Your task to perform on an android device: open sync settings in chrome Image 0: 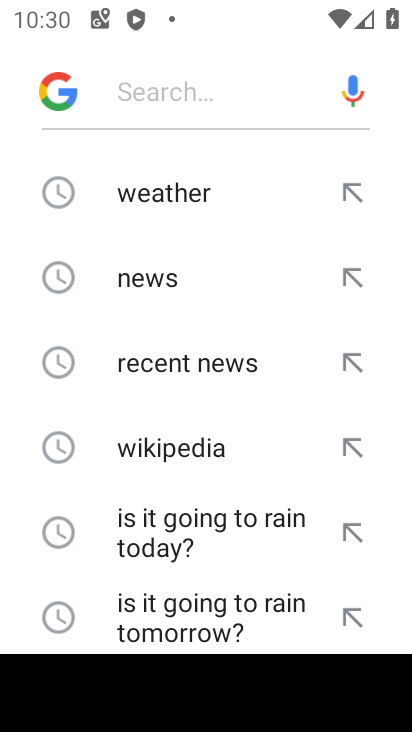
Step 0: press back button
Your task to perform on an android device: open sync settings in chrome Image 1: 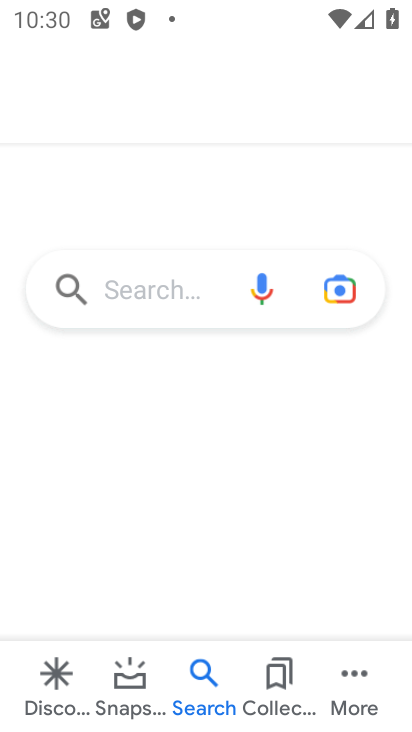
Step 1: press back button
Your task to perform on an android device: open sync settings in chrome Image 2: 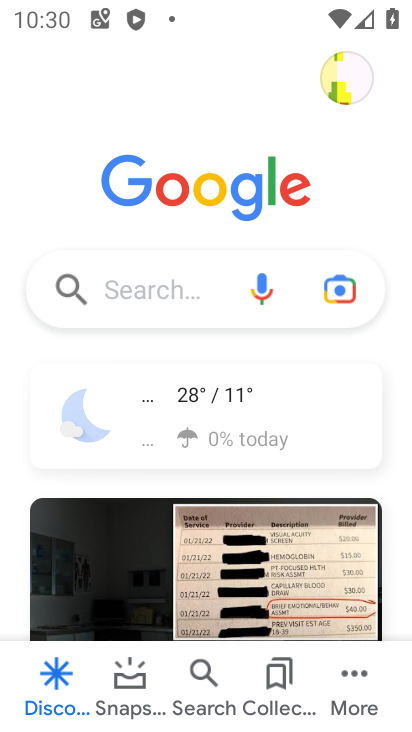
Step 2: press back button
Your task to perform on an android device: open sync settings in chrome Image 3: 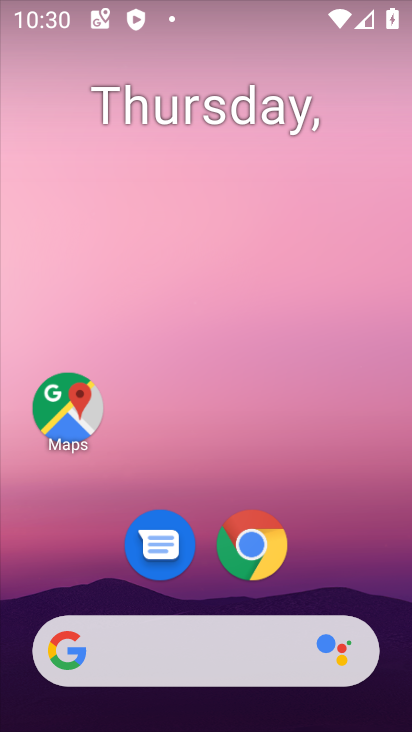
Step 3: click (253, 543)
Your task to perform on an android device: open sync settings in chrome Image 4: 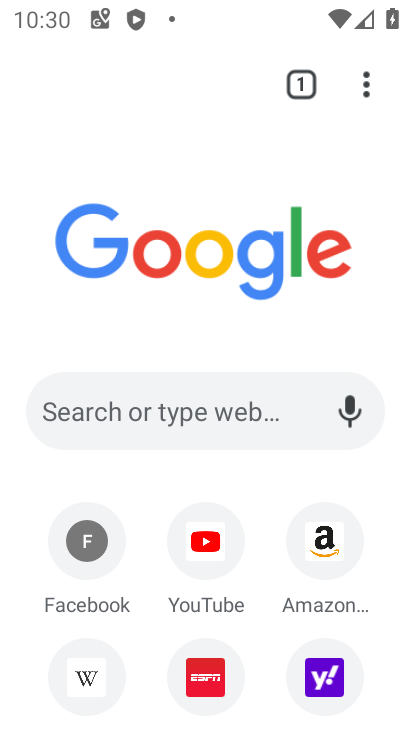
Step 4: click (366, 86)
Your task to perform on an android device: open sync settings in chrome Image 5: 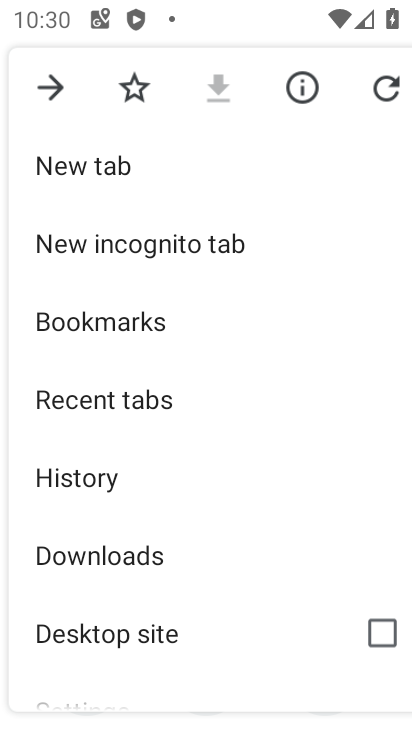
Step 5: drag from (167, 506) to (262, 390)
Your task to perform on an android device: open sync settings in chrome Image 6: 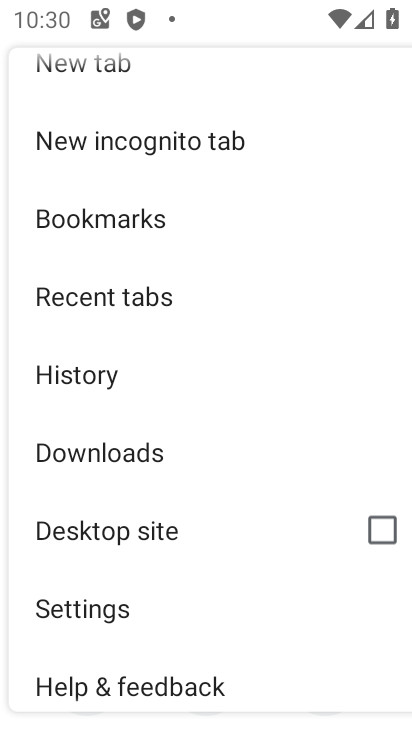
Step 6: click (104, 616)
Your task to perform on an android device: open sync settings in chrome Image 7: 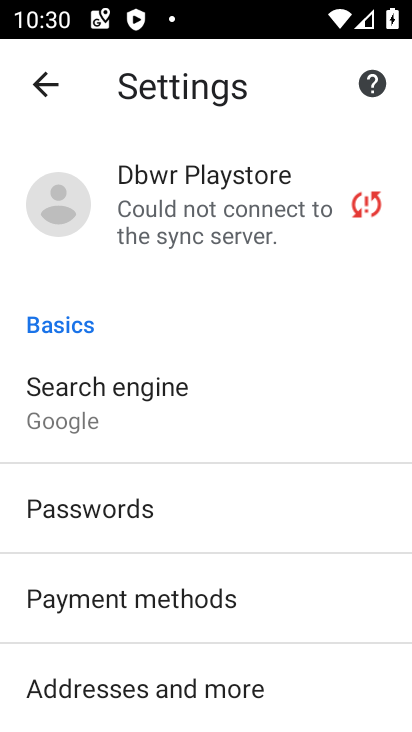
Step 7: drag from (159, 569) to (257, 464)
Your task to perform on an android device: open sync settings in chrome Image 8: 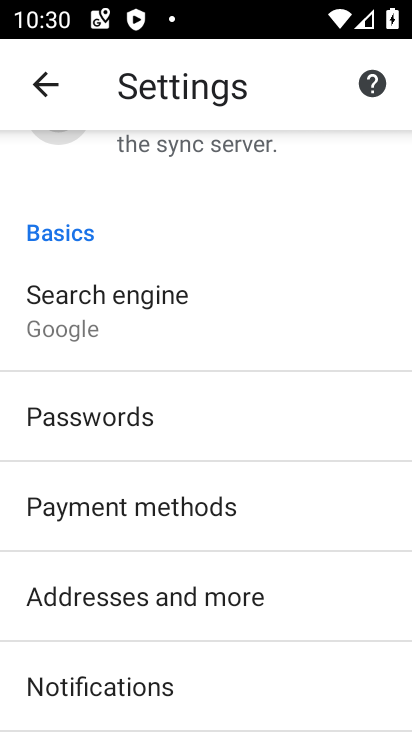
Step 8: drag from (132, 619) to (253, 491)
Your task to perform on an android device: open sync settings in chrome Image 9: 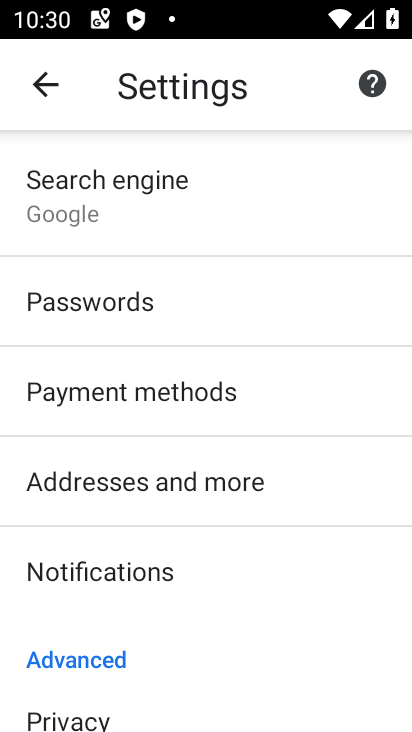
Step 9: drag from (142, 599) to (266, 467)
Your task to perform on an android device: open sync settings in chrome Image 10: 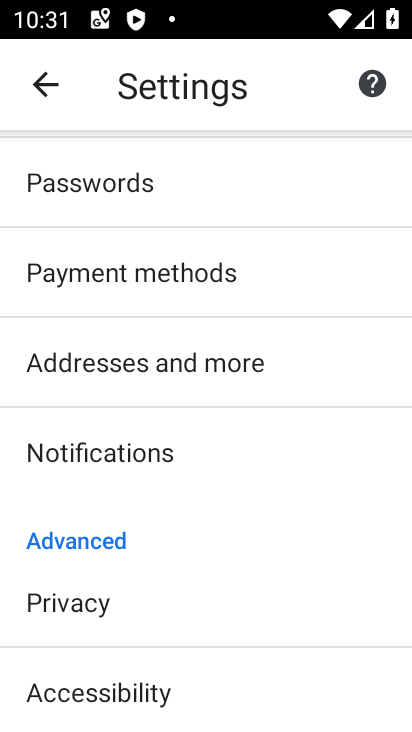
Step 10: drag from (135, 609) to (226, 503)
Your task to perform on an android device: open sync settings in chrome Image 11: 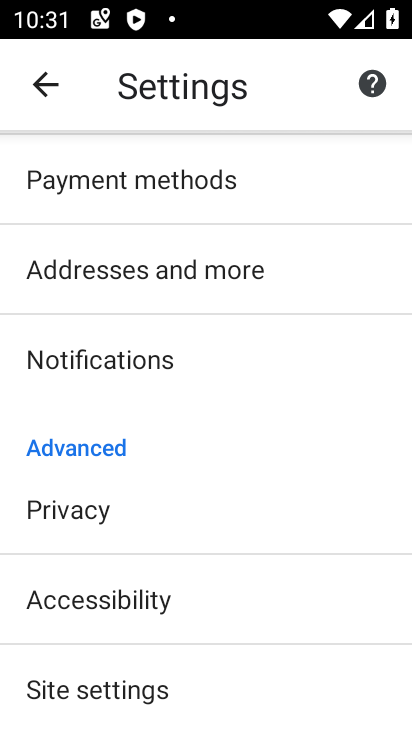
Step 11: drag from (175, 634) to (279, 513)
Your task to perform on an android device: open sync settings in chrome Image 12: 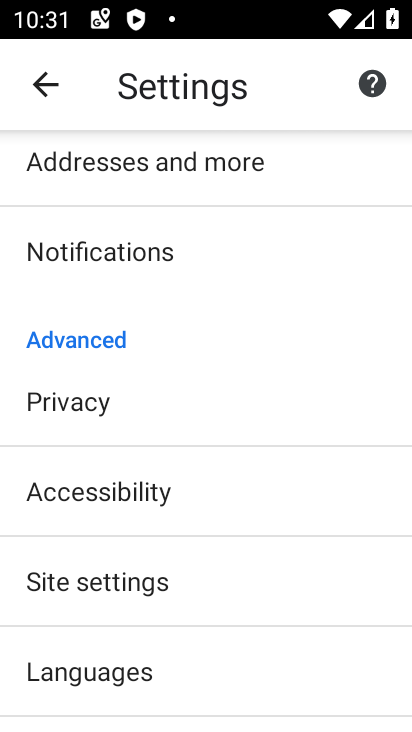
Step 12: click (129, 584)
Your task to perform on an android device: open sync settings in chrome Image 13: 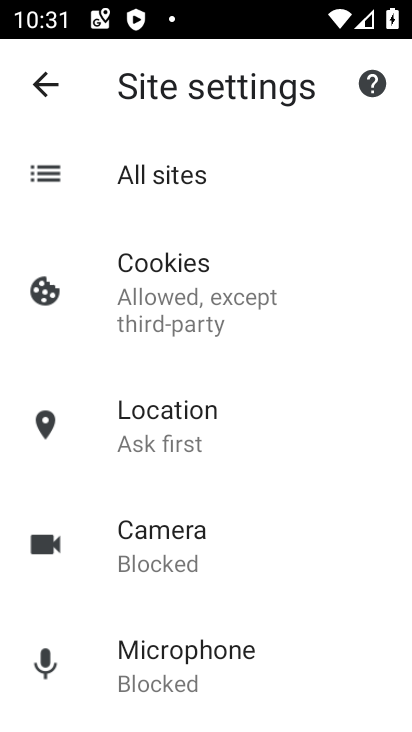
Step 13: drag from (161, 619) to (257, 515)
Your task to perform on an android device: open sync settings in chrome Image 14: 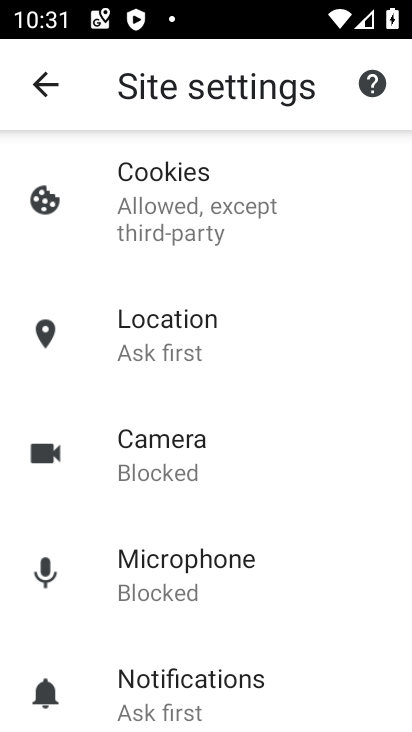
Step 14: drag from (164, 632) to (283, 497)
Your task to perform on an android device: open sync settings in chrome Image 15: 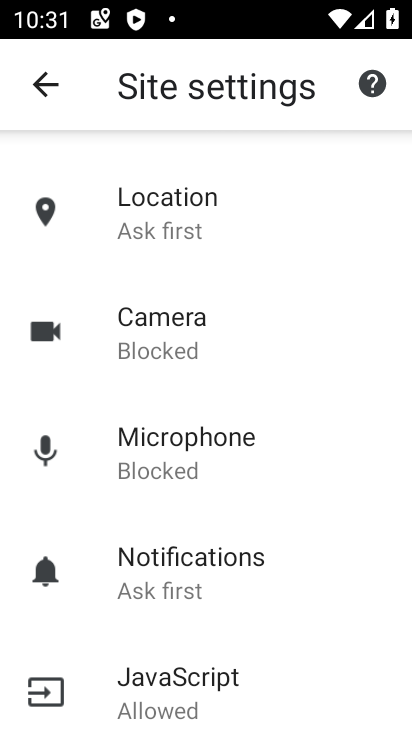
Step 15: drag from (170, 625) to (282, 499)
Your task to perform on an android device: open sync settings in chrome Image 16: 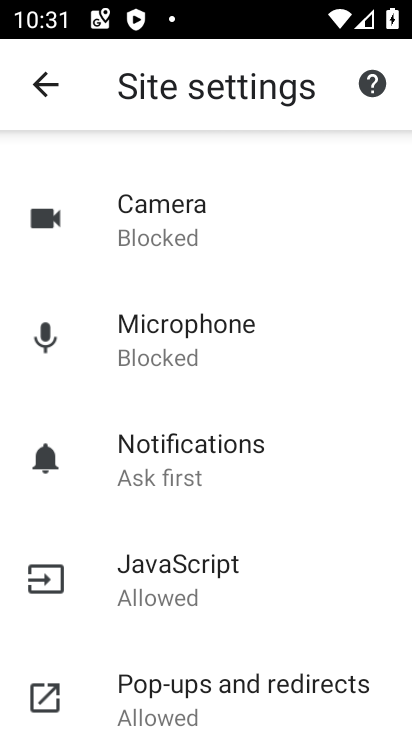
Step 16: drag from (170, 638) to (292, 500)
Your task to perform on an android device: open sync settings in chrome Image 17: 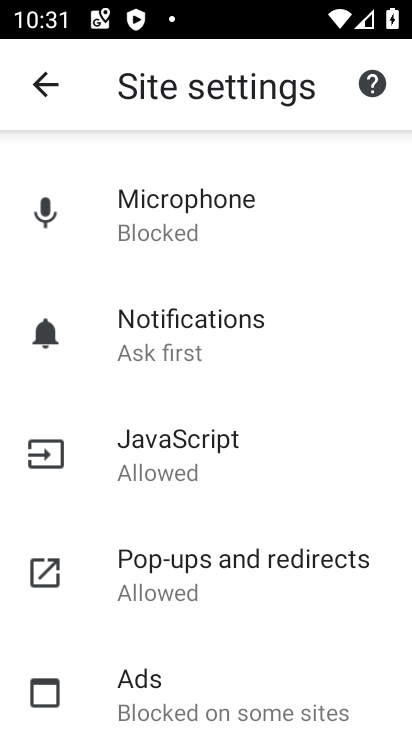
Step 17: drag from (182, 648) to (292, 478)
Your task to perform on an android device: open sync settings in chrome Image 18: 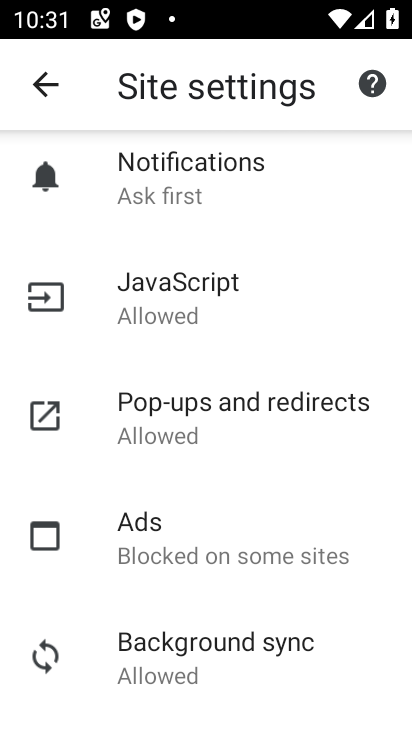
Step 18: click (192, 642)
Your task to perform on an android device: open sync settings in chrome Image 19: 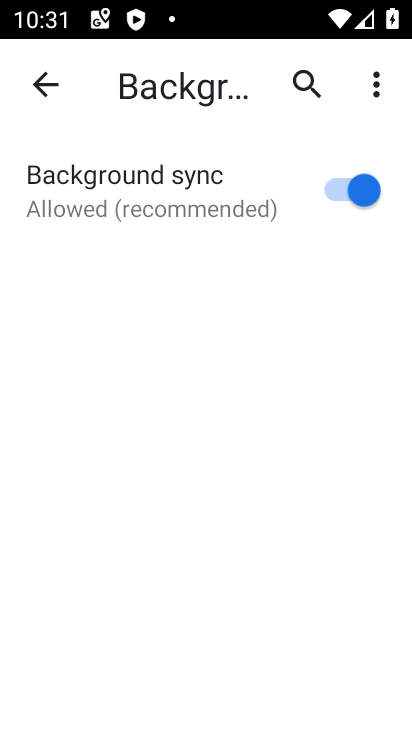
Step 19: task complete